Your task to perform on an android device: Open ESPN.com Image 0: 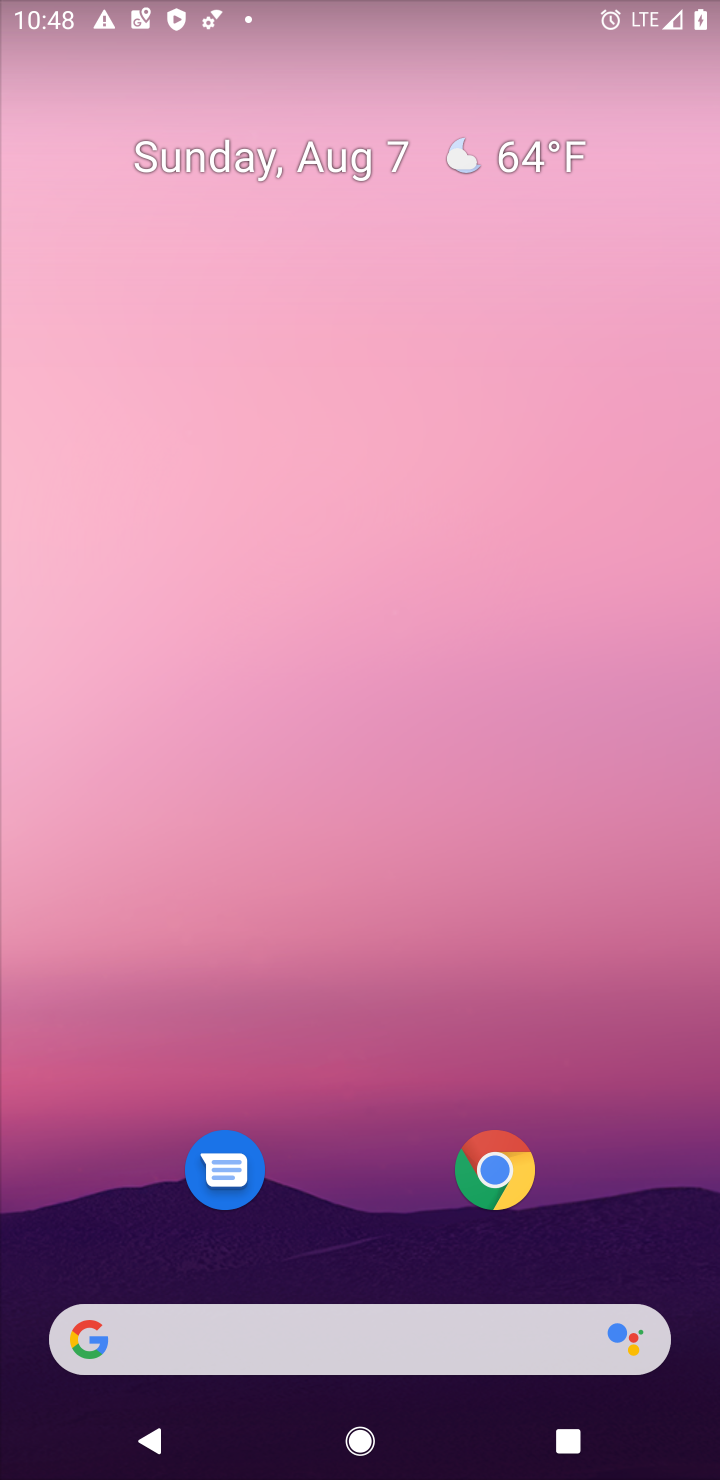
Step 0: drag from (349, 1314) to (354, 53)
Your task to perform on an android device: Open ESPN.com Image 1: 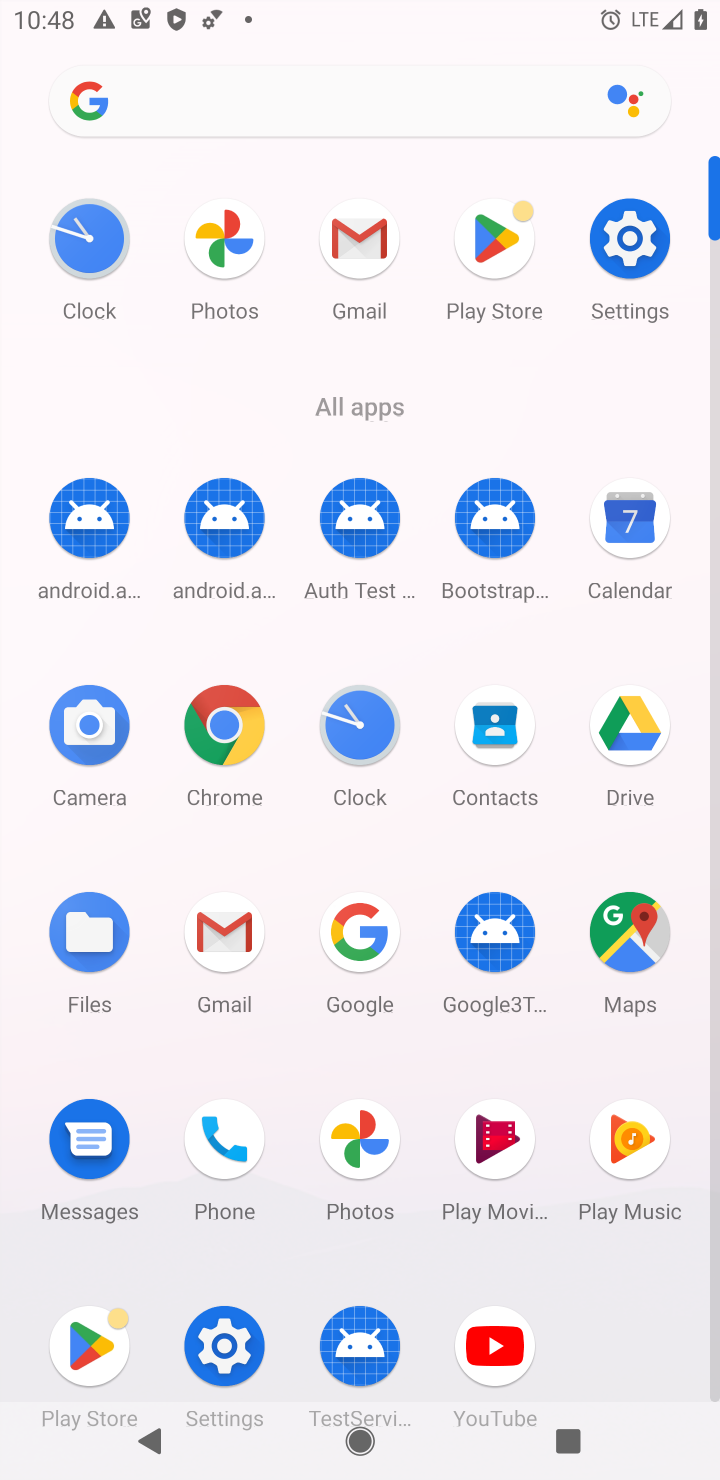
Step 1: click (219, 775)
Your task to perform on an android device: Open ESPN.com Image 2: 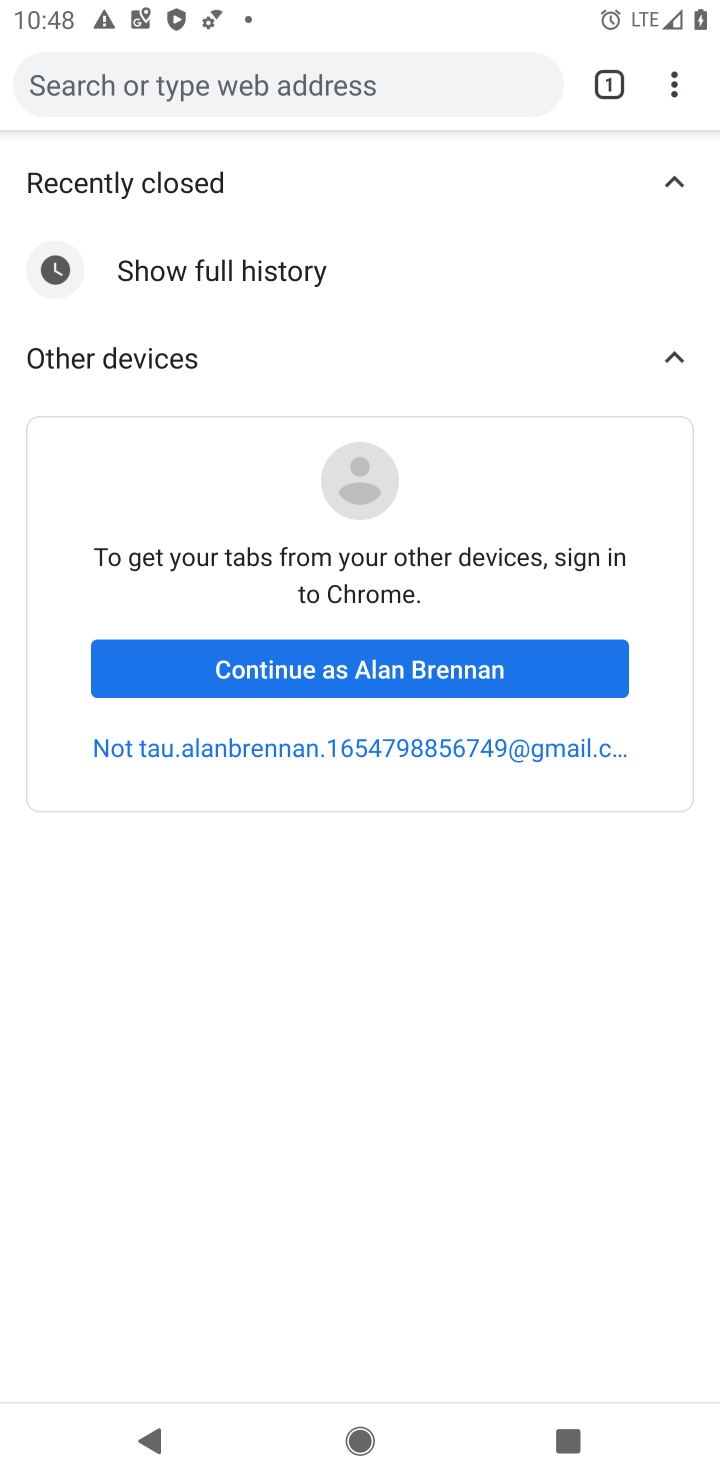
Step 2: click (384, 87)
Your task to perform on an android device: Open ESPN.com Image 3: 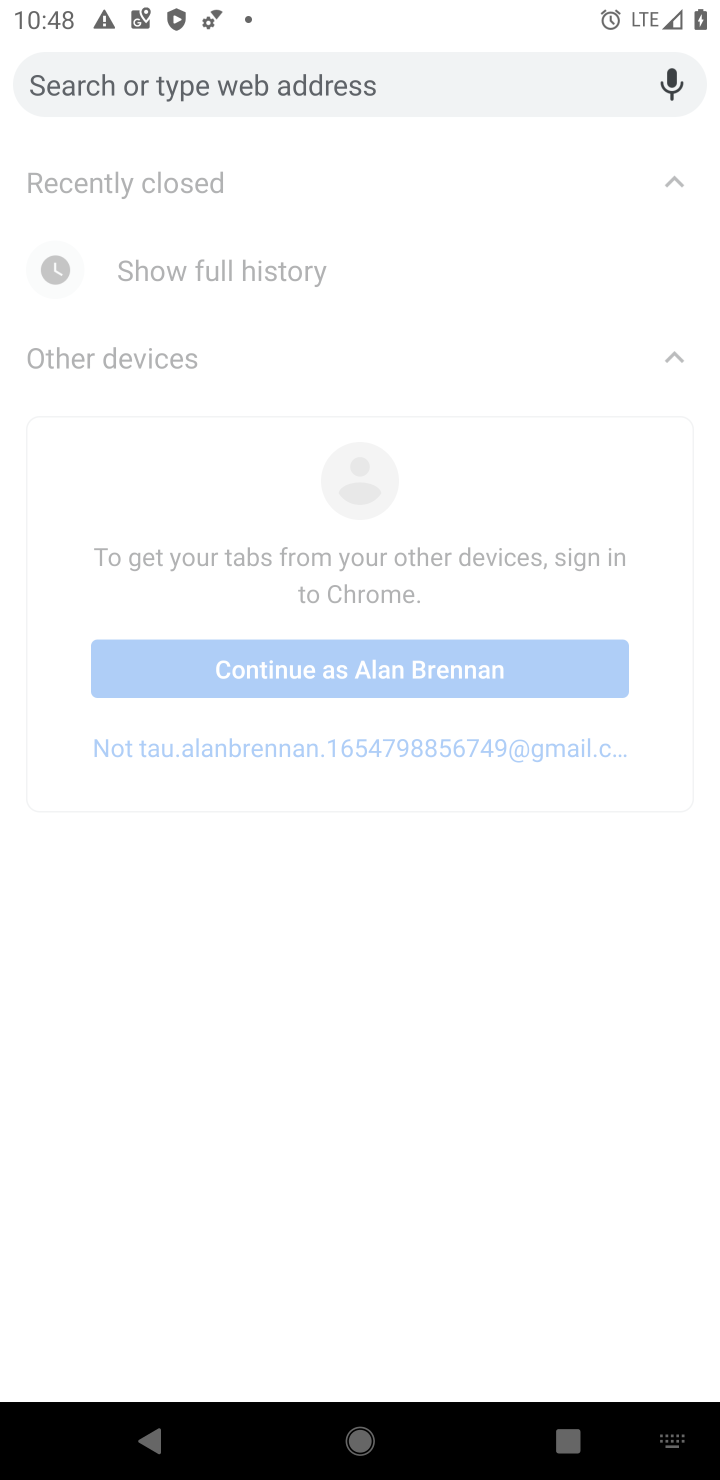
Step 3: type "espn.com"
Your task to perform on an android device: Open ESPN.com Image 4: 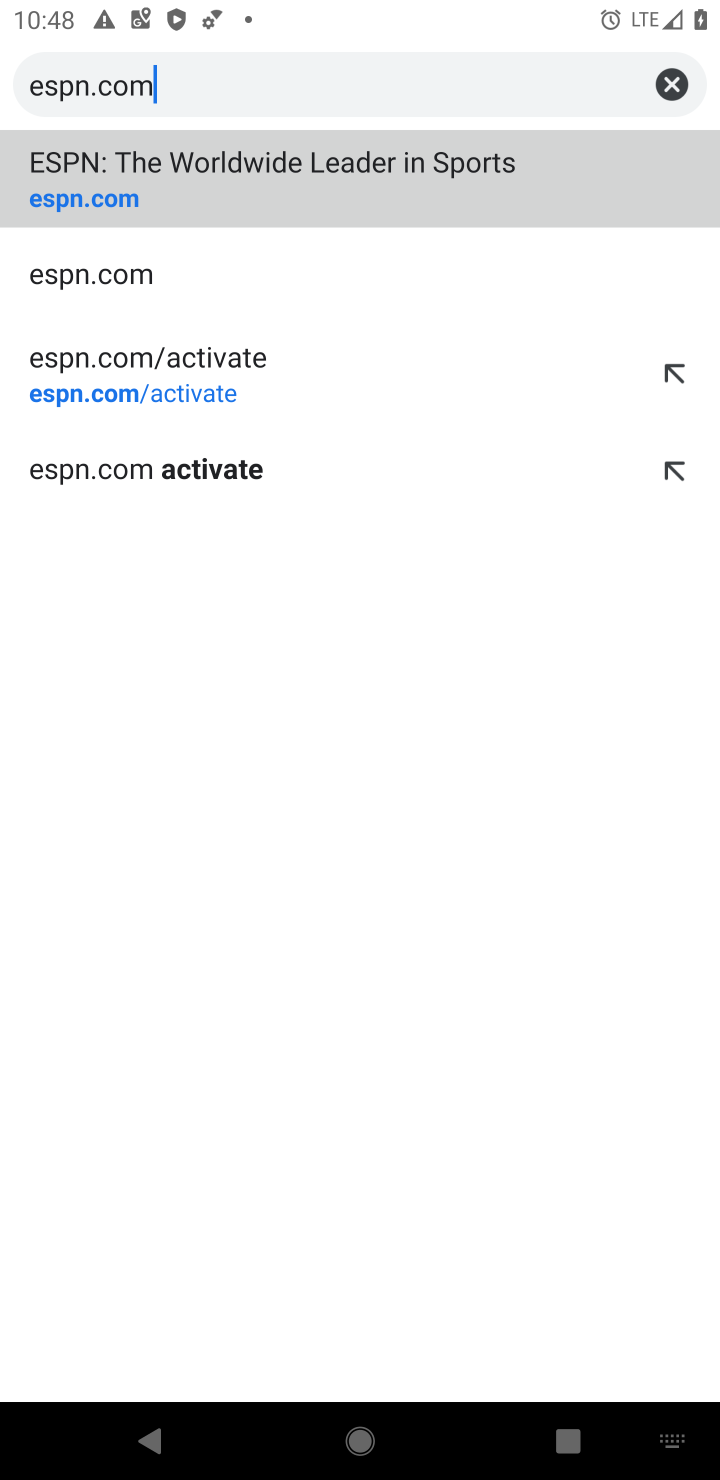
Step 4: click (249, 160)
Your task to perform on an android device: Open ESPN.com Image 5: 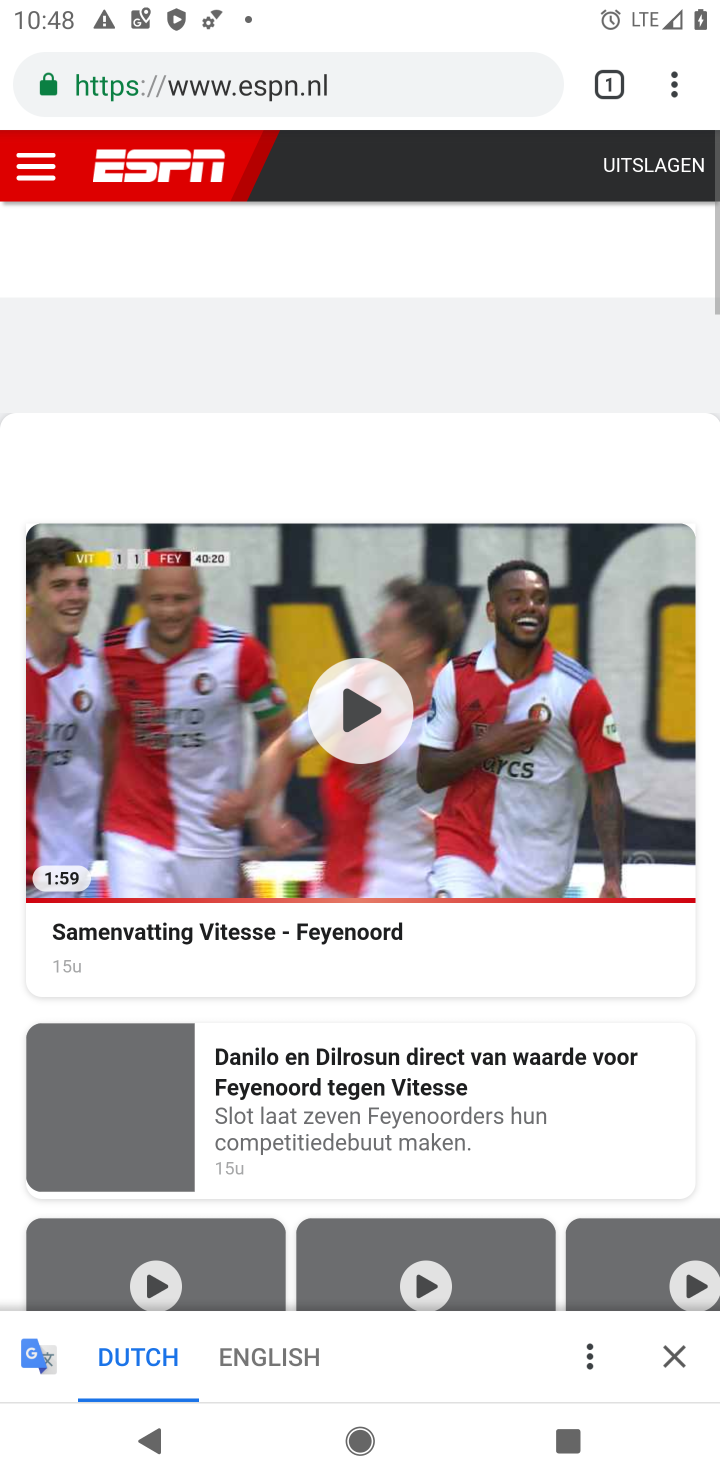
Step 5: task complete